Your task to perform on an android device: set an alarm Image 0: 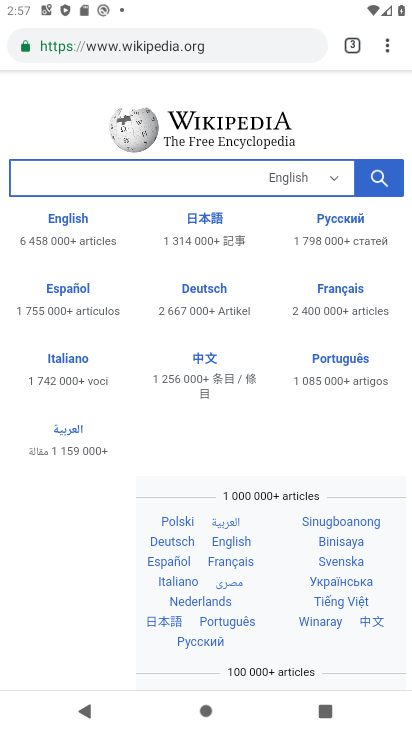
Step 0: press home button
Your task to perform on an android device: set an alarm Image 1: 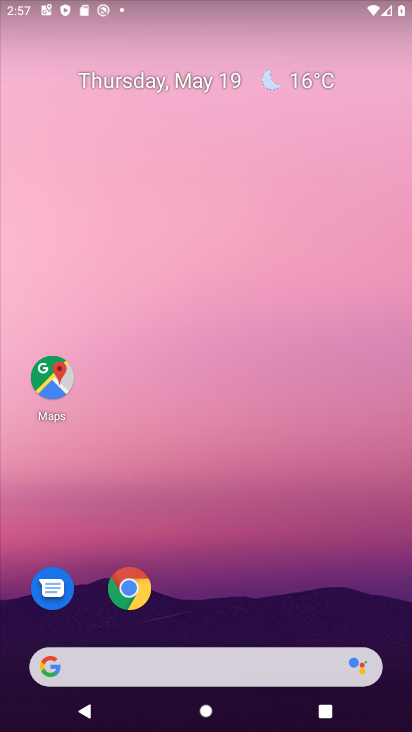
Step 1: drag from (291, 552) to (278, 164)
Your task to perform on an android device: set an alarm Image 2: 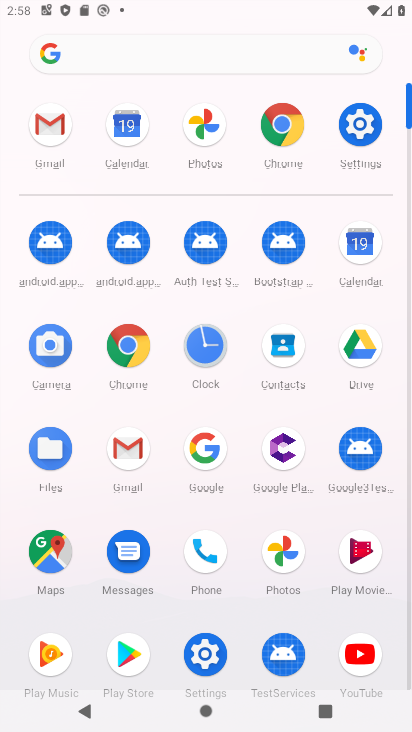
Step 2: click (209, 335)
Your task to perform on an android device: set an alarm Image 3: 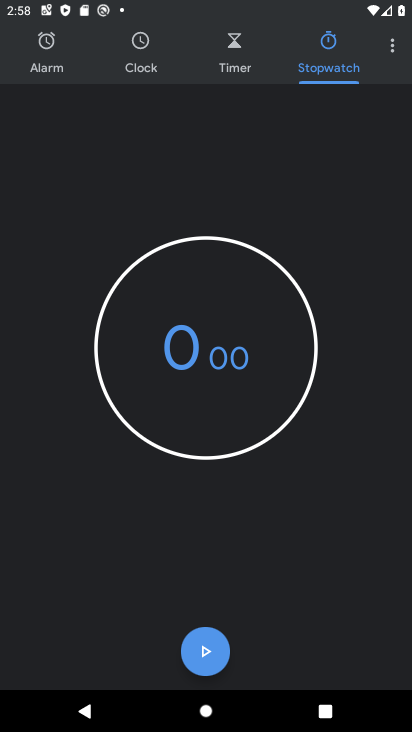
Step 3: click (56, 58)
Your task to perform on an android device: set an alarm Image 4: 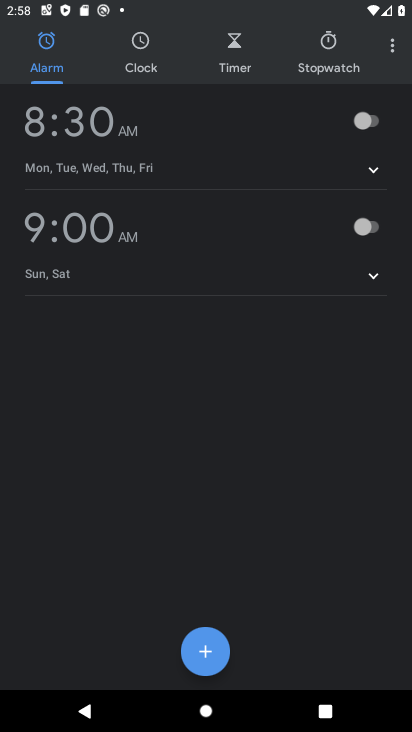
Step 4: click (208, 663)
Your task to perform on an android device: set an alarm Image 5: 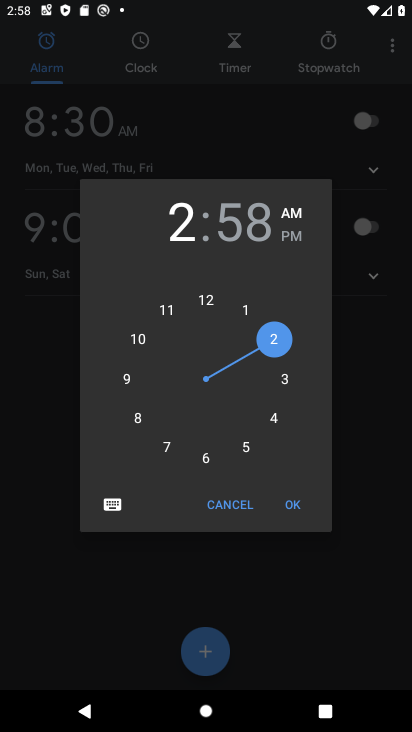
Step 5: click (298, 498)
Your task to perform on an android device: set an alarm Image 6: 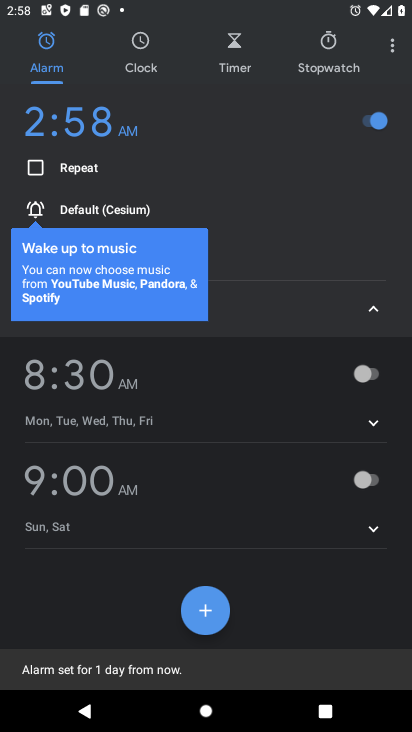
Step 6: task complete